Your task to perform on an android device: Show me recent news Image 0: 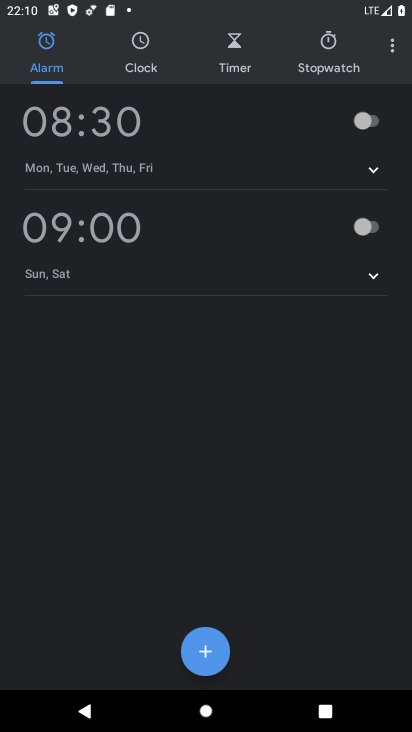
Step 0: press back button
Your task to perform on an android device: Show me recent news Image 1: 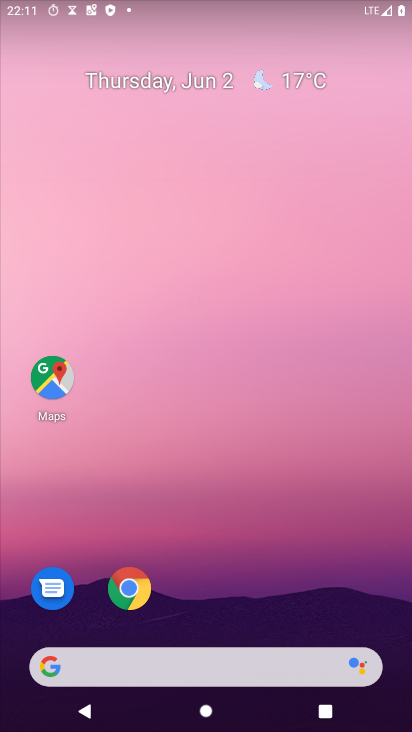
Step 1: drag from (299, 548) to (278, 14)
Your task to perform on an android device: Show me recent news Image 2: 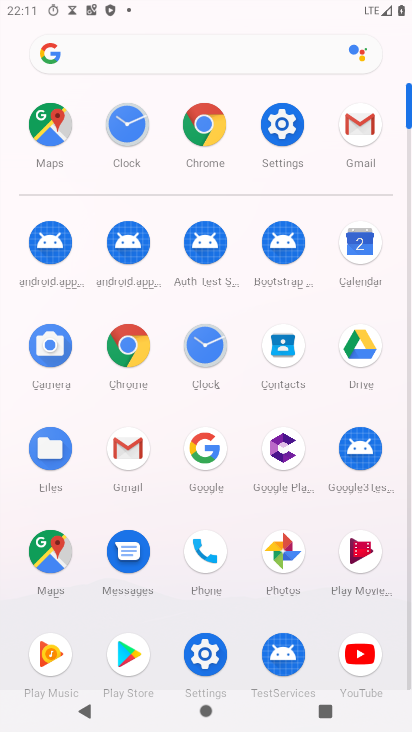
Step 2: click (172, 59)
Your task to perform on an android device: Show me recent news Image 3: 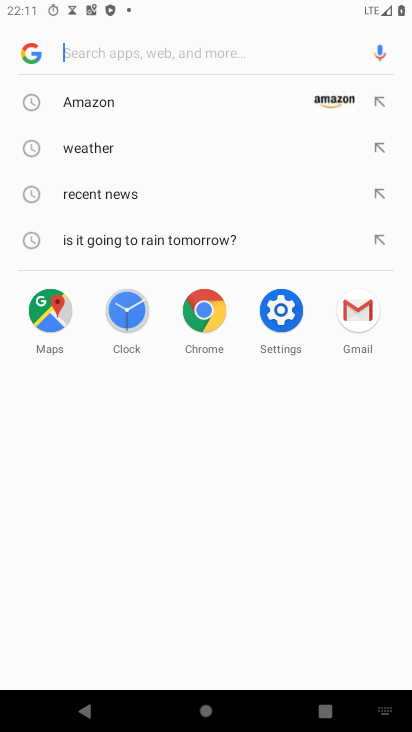
Step 3: click (105, 190)
Your task to perform on an android device: Show me recent news Image 4: 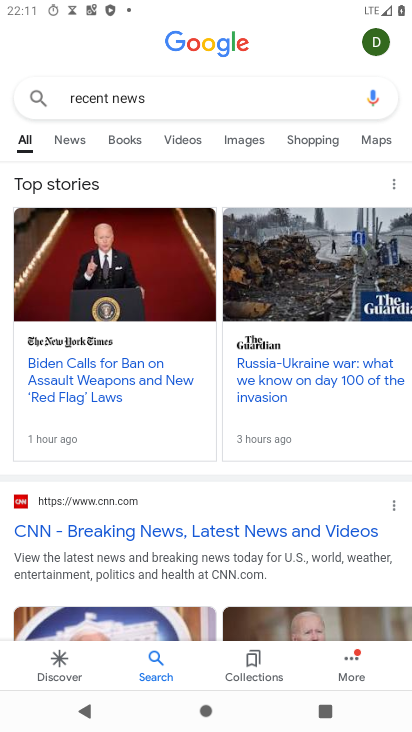
Step 4: task complete